Your task to perform on an android device: Search for vegetarian restaurants on Maps Image 0: 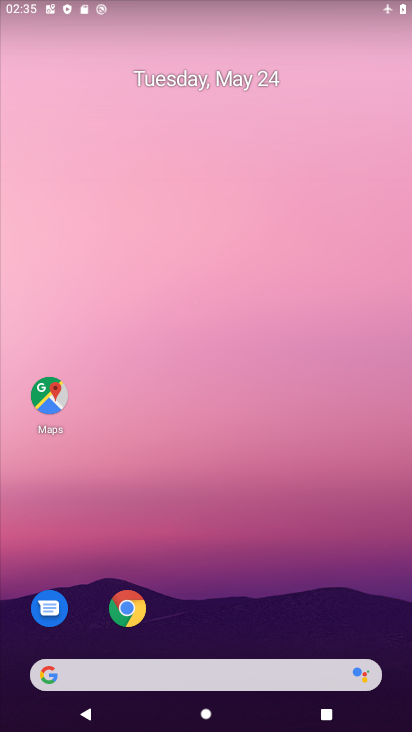
Step 0: click (52, 394)
Your task to perform on an android device: Search for vegetarian restaurants on Maps Image 1: 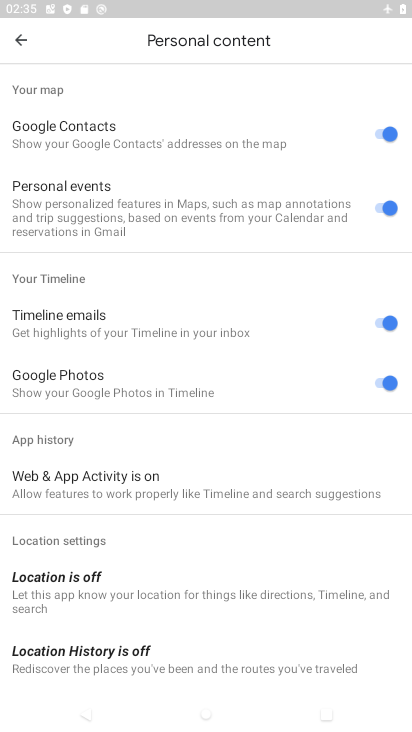
Step 1: click (17, 44)
Your task to perform on an android device: Search for vegetarian restaurants on Maps Image 2: 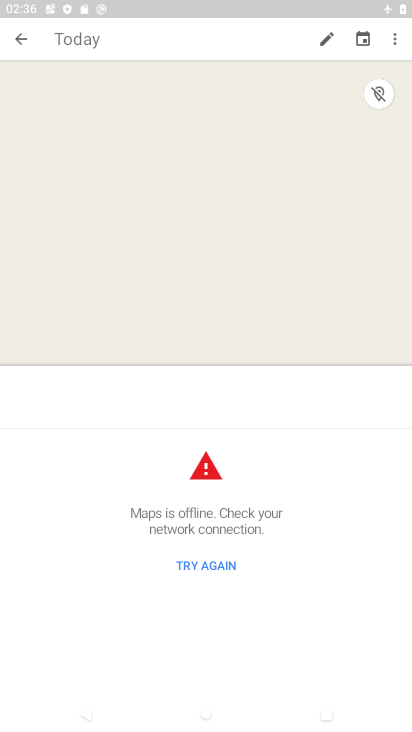
Step 2: click (17, 44)
Your task to perform on an android device: Search for vegetarian restaurants on Maps Image 3: 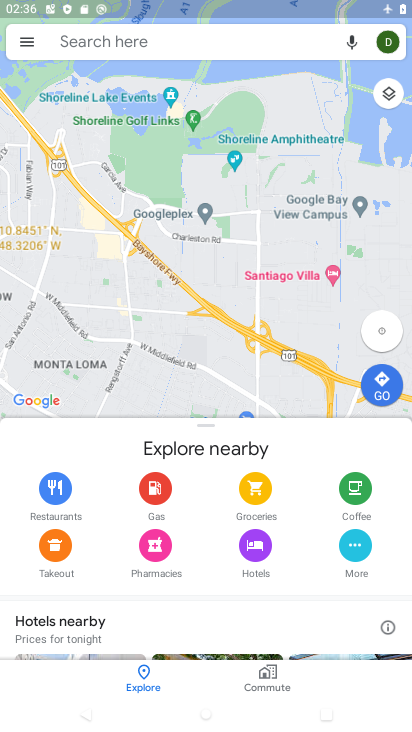
Step 3: click (164, 49)
Your task to perform on an android device: Search for vegetarian restaurants on Maps Image 4: 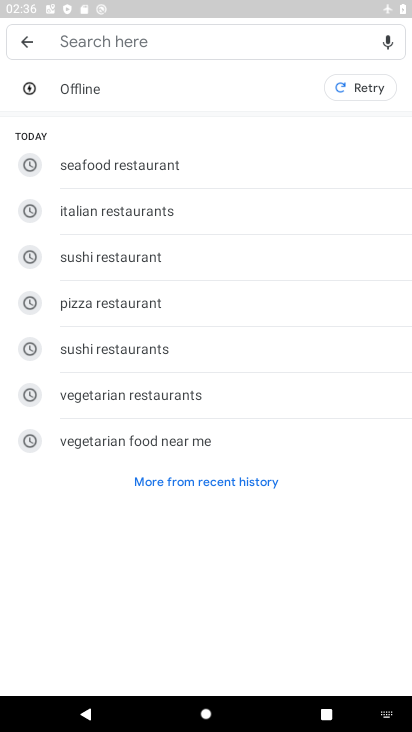
Step 4: click (213, 399)
Your task to perform on an android device: Search for vegetarian restaurants on Maps Image 5: 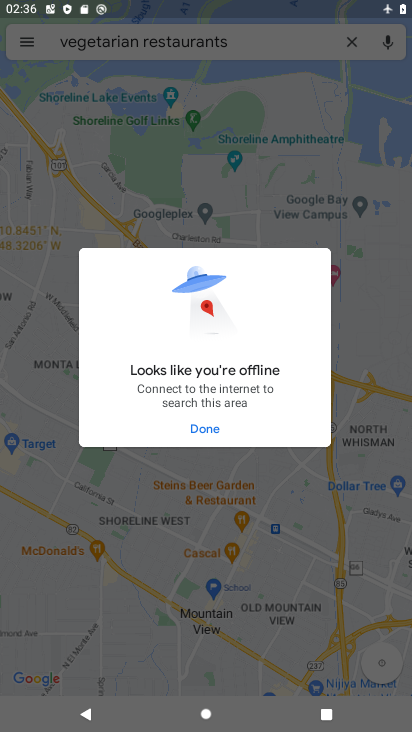
Step 5: task complete